Your task to perform on an android device: turn off sleep mode Image 0: 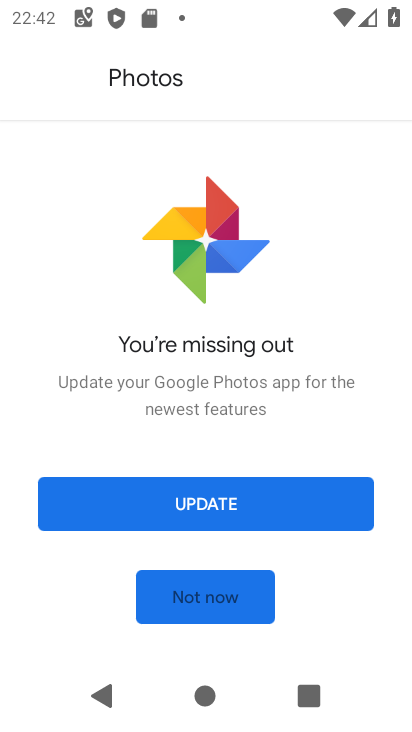
Step 0: press home button
Your task to perform on an android device: turn off sleep mode Image 1: 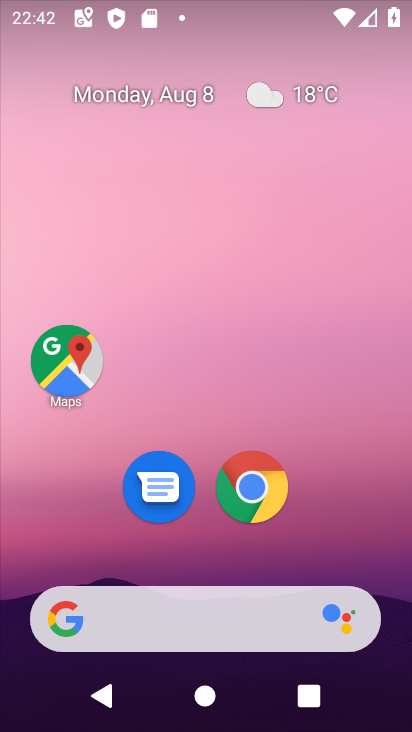
Step 1: drag from (207, 573) to (207, 67)
Your task to perform on an android device: turn off sleep mode Image 2: 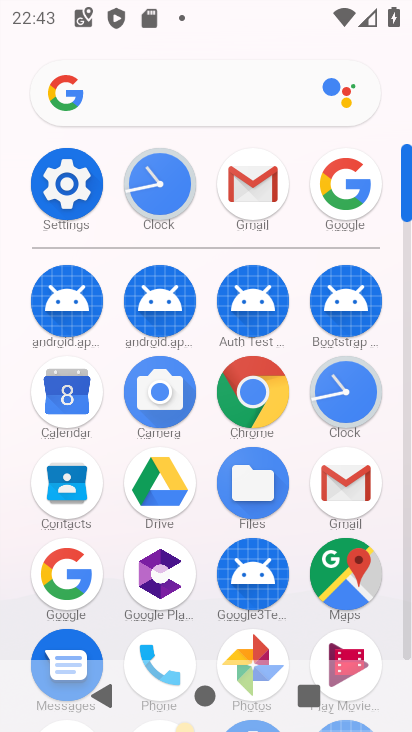
Step 2: click (71, 190)
Your task to perform on an android device: turn off sleep mode Image 3: 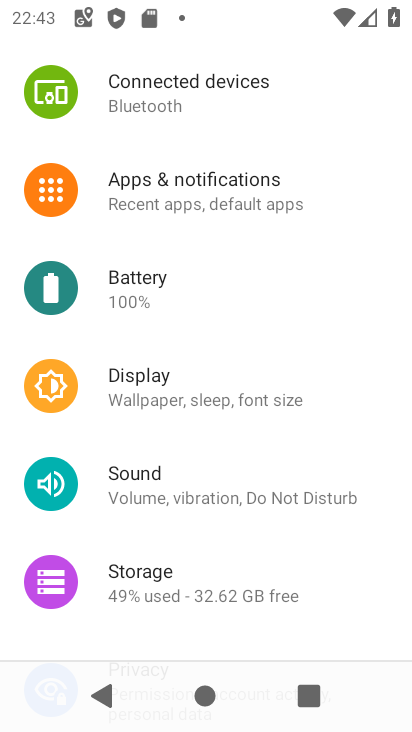
Step 3: click (190, 398)
Your task to perform on an android device: turn off sleep mode Image 4: 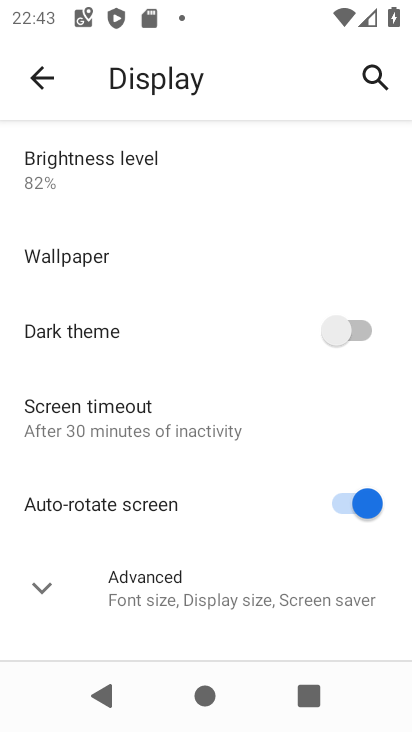
Step 4: task complete